Your task to perform on an android device: add a contact in the contacts app Image 0: 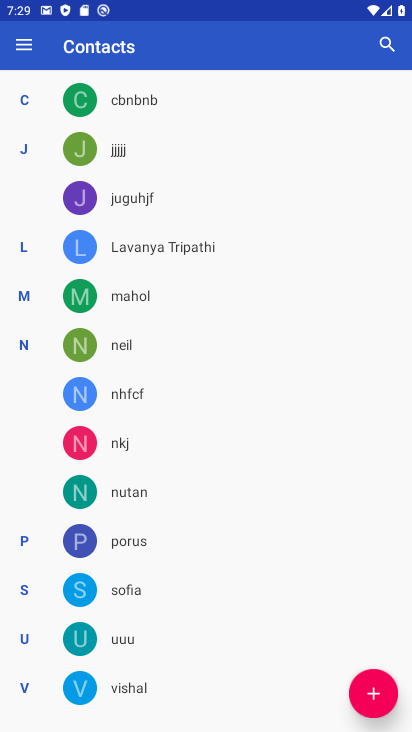
Step 0: press home button
Your task to perform on an android device: add a contact in the contacts app Image 1: 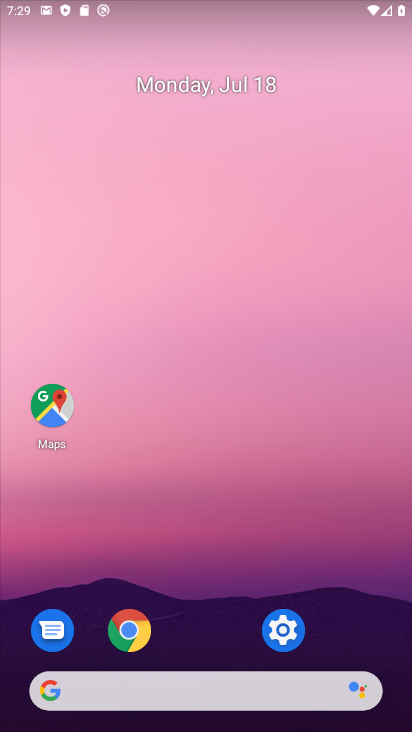
Step 1: drag from (237, 711) to (249, 296)
Your task to perform on an android device: add a contact in the contacts app Image 2: 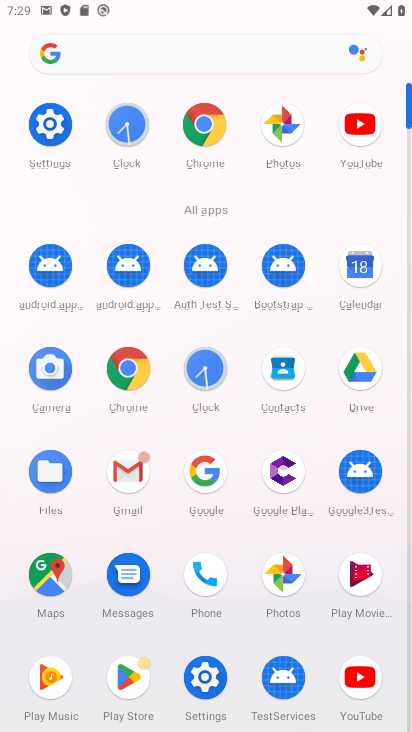
Step 2: click (199, 572)
Your task to perform on an android device: add a contact in the contacts app Image 3: 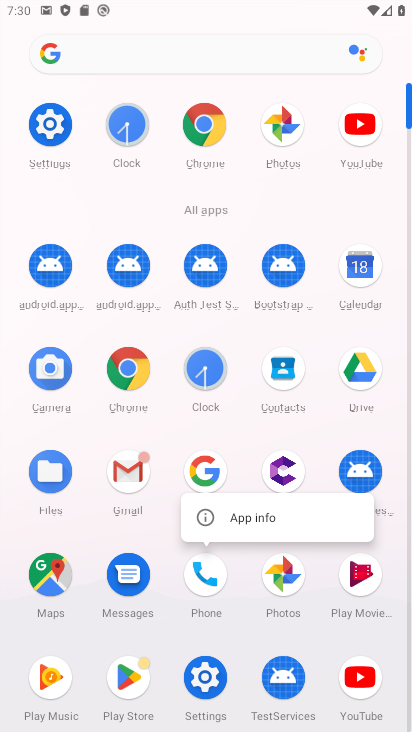
Step 3: click (200, 574)
Your task to perform on an android device: add a contact in the contacts app Image 4: 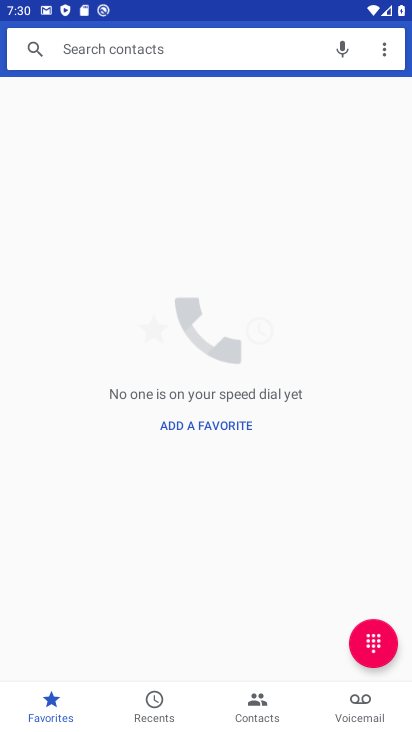
Step 4: click (260, 711)
Your task to perform on an android device: add a contact in the contacts app Image 5: 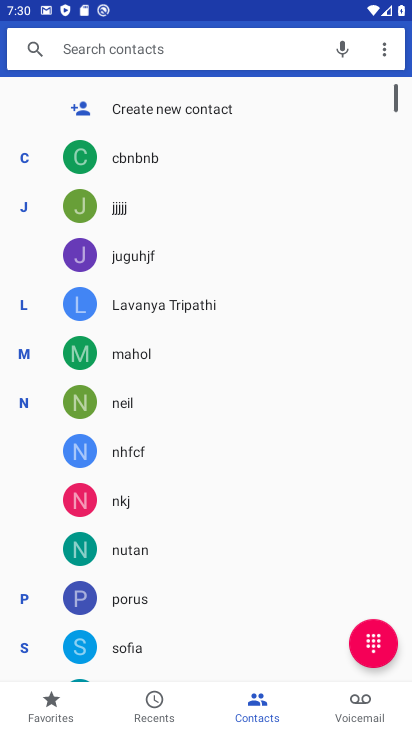
Step 5: click (135, 119)
Your task to perform on an android device: add a contact in the contacts app Image 6: 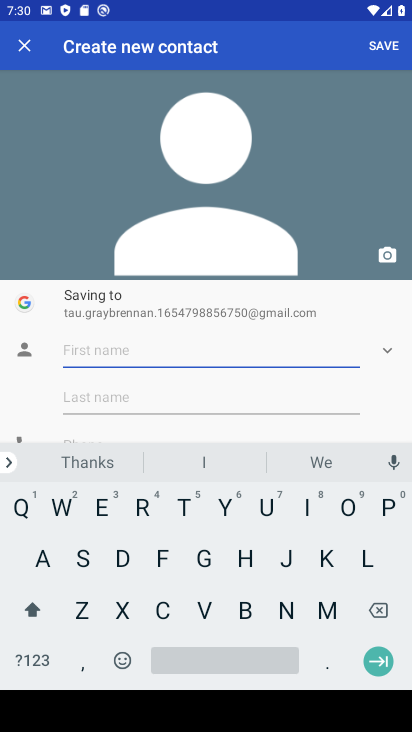
Step 6: click (154, 512)
Your task to perform on an android device: add a contact in the contacts app Image 7: 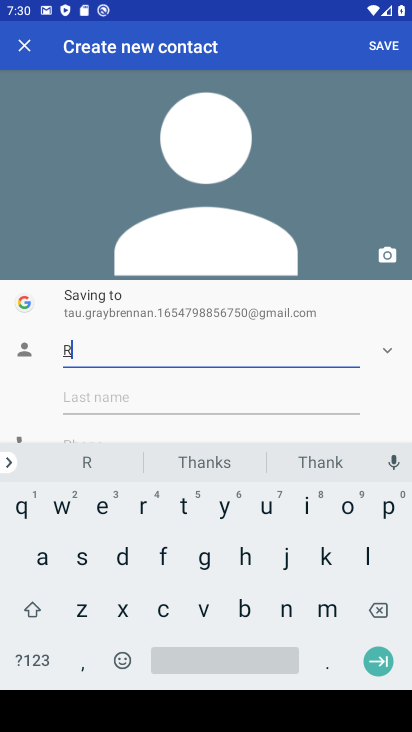
Step 7: click (167, 543)
Your task to perform on an android device: add a contact in the contacts app Image 8: 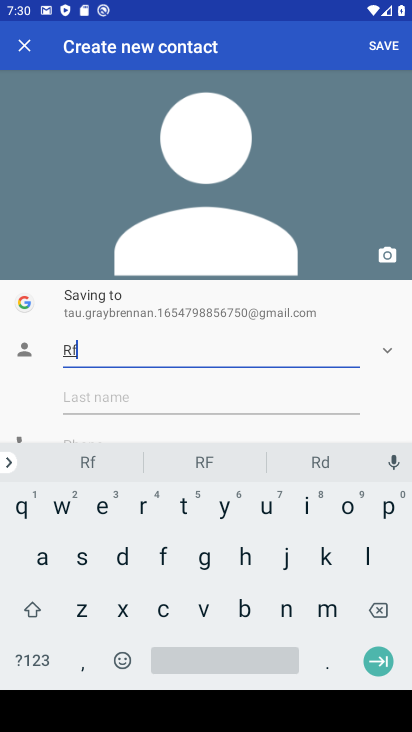
Step 8: click (187, 549)
Your task to perform on an android device: add a contact in the contacts app Image 9: 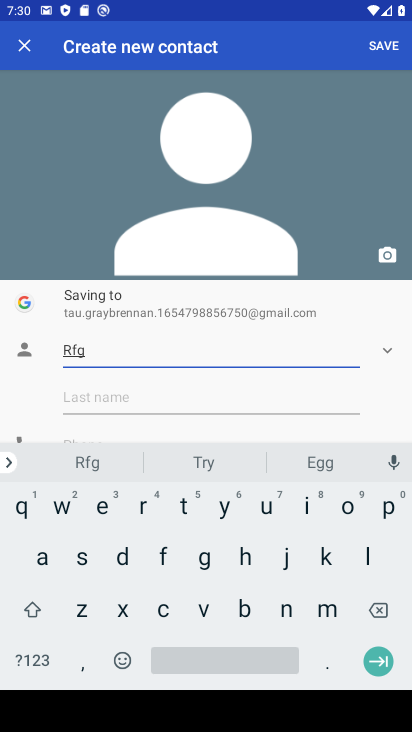
Step 9: drag from (194, 401) to (236, 292)
Your task to perform on an android device: add a contact in the contacts app Image 10: 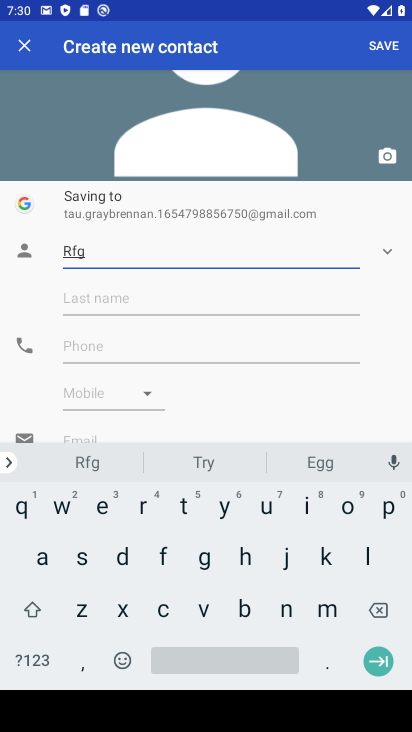
Step 10: click (138, 352)
Your task to perform on an android device: add a contact in the contacts app Image 11: 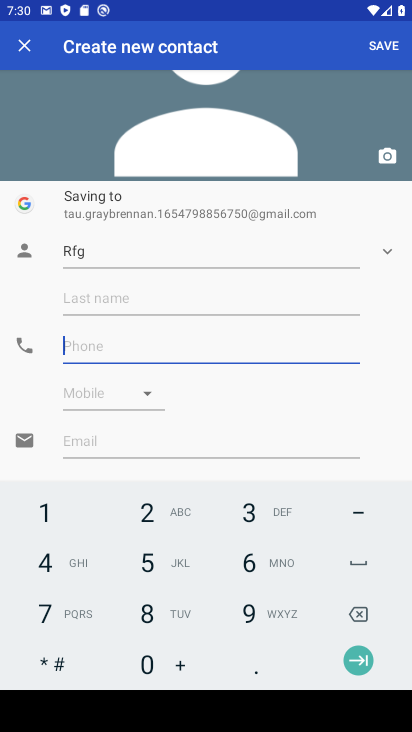
Step 11: click (162, 564)
Your task to perform on an android device: add a contact in the contacts app Image 12: 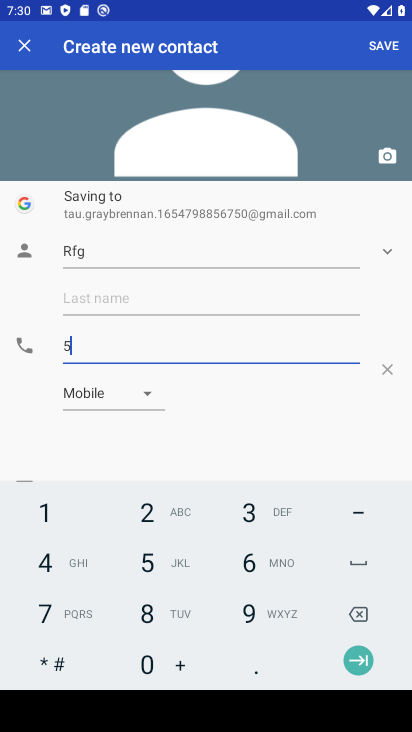
Step 12: click (51, 576)
Your task to perform on an android device: add a contact in the contacts app Image 13: 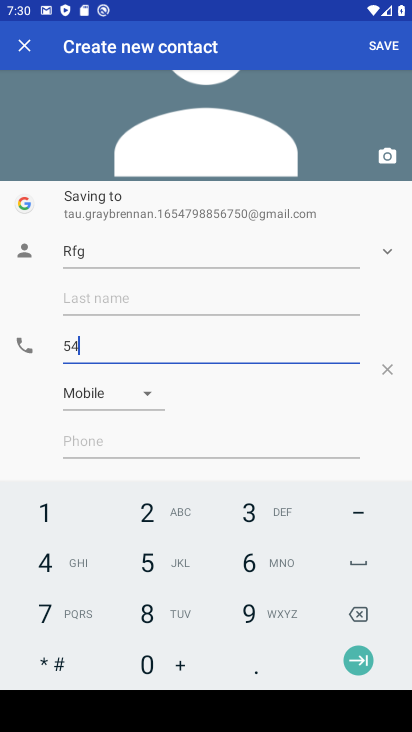
Step 13: click (115, 605)
Your task to perform on an android device: add a contact in the contacts app Image 14: 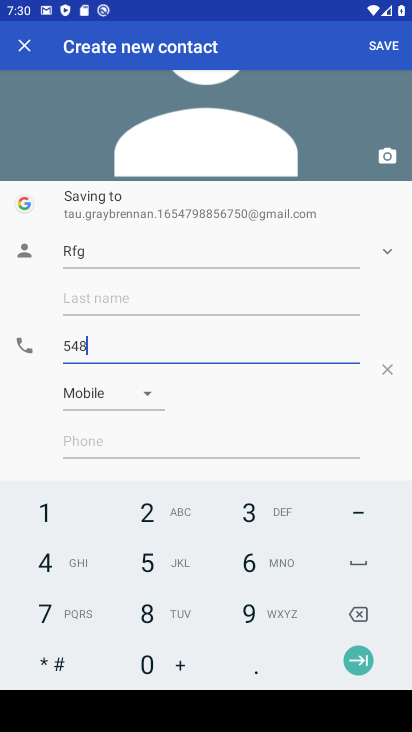
Step 14: click (154, 523)
Your task to perform on an android device: add a contact in the contacts app Image 15: 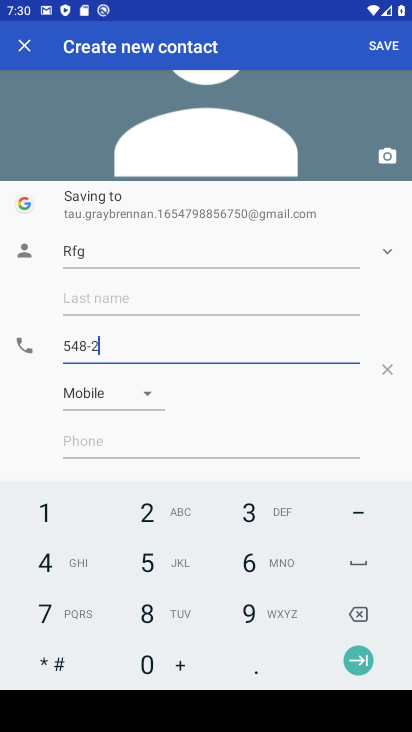
Step 15: click (257, 612)
Your task to perform on an android device: add a contact in the contacts app Image 16: 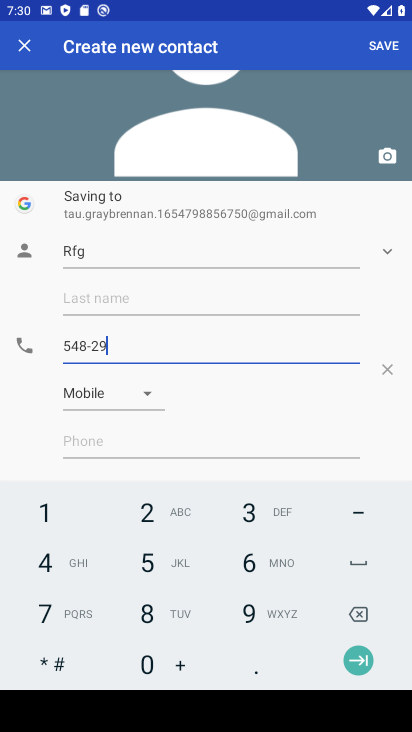
Step 16: click (268, 579)
Your task to perform on an android device: add a contact in the contacts app Image 17: 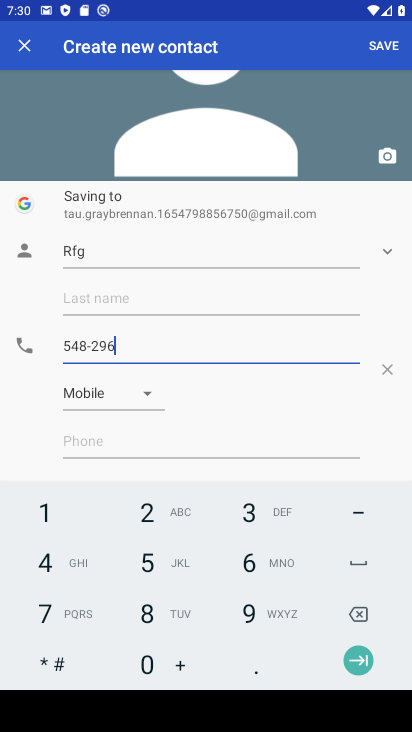
Step 17: click (136, 558)
Your task to perform on an android device: add a contact in the contacts app Image 18: 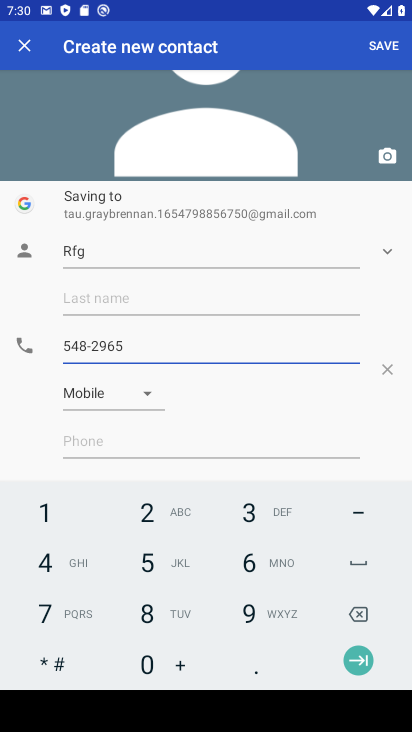
Step 18: click (377, 41)
Your task to perform on an android device: add a contact in the contacts app Image 19: 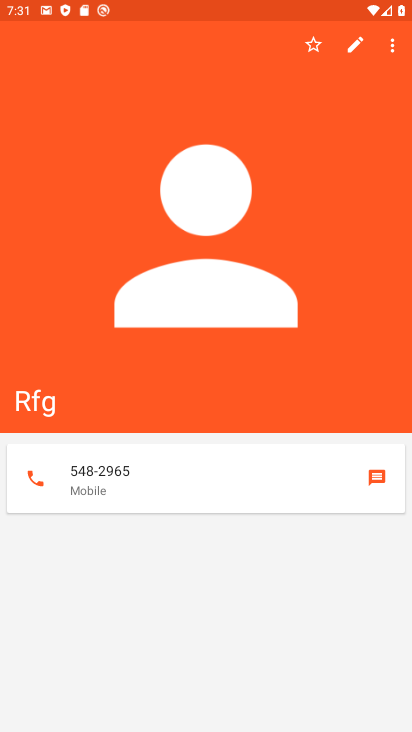
Step 19: task complete